Your task to perform on an android device: open sync settings in chrome Image 0: 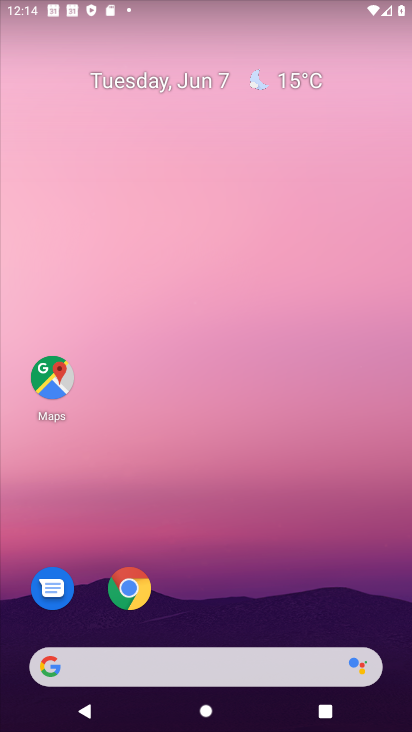
Step 0: click (137, 596)
Your task to perform on an android device: open sync settings in chrome Image 1: 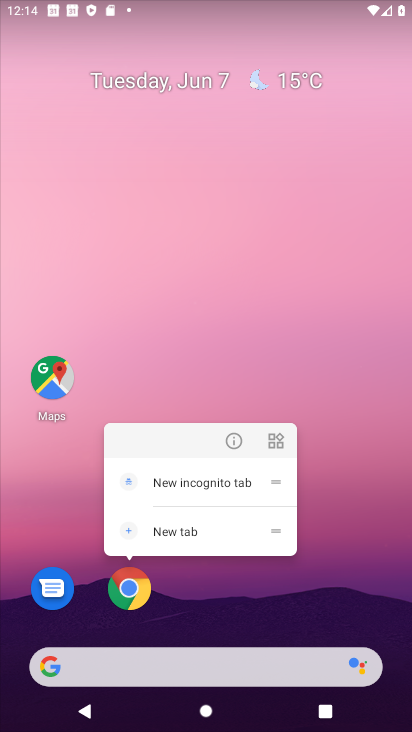
Step 1: click (135, 587)
Your task to perform on an android device: open sync settings in chrome Image 2: 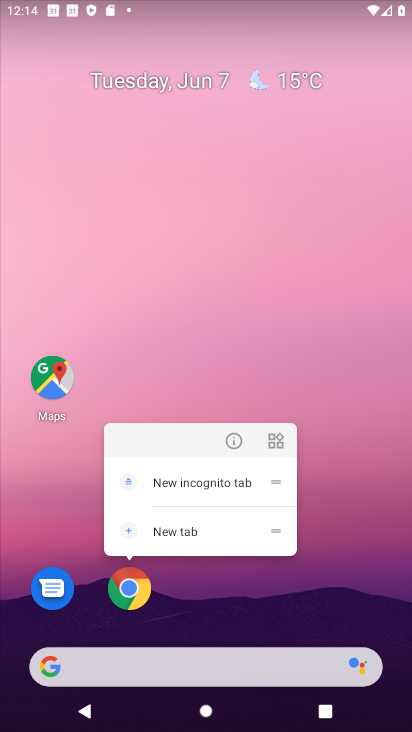
Step 2: click (134, 584)
Your task to perform on an android device: open sync settings in chrome Image 3: 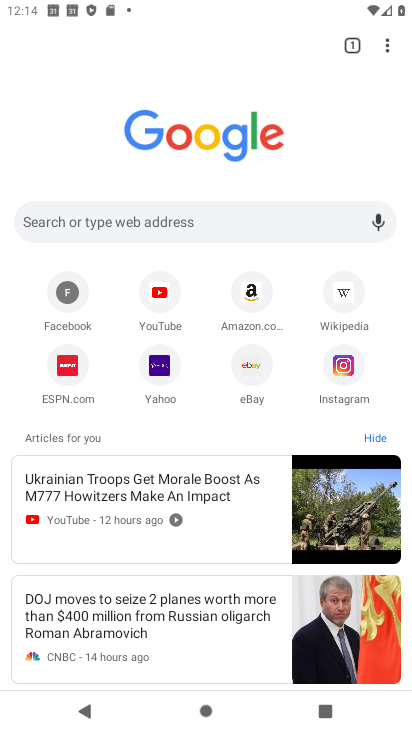
Step 3: drag from (383, 48) to (233, 378)
Your task to perform on an android device: open sync settings in chrome Image 4: 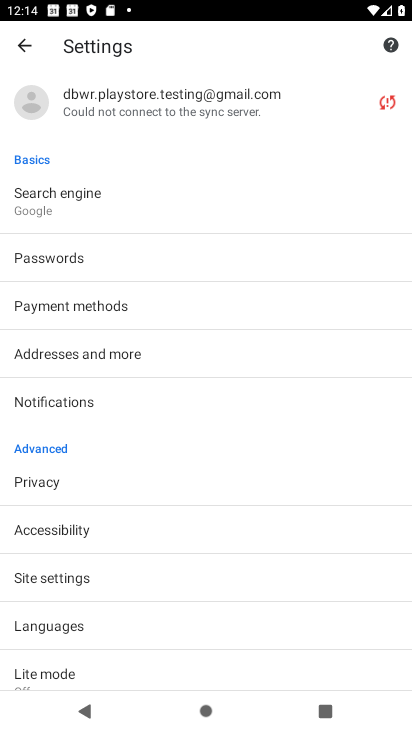
Step 4: click (168, 106)
Your task to perform on an android device: open sync settings in chrome Image 5: 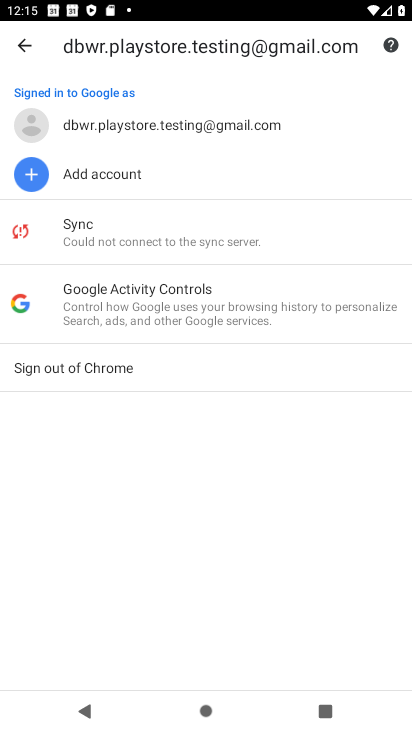
Step 5: task complete